Your task to perform on an android device: turn on wifi Image 0: 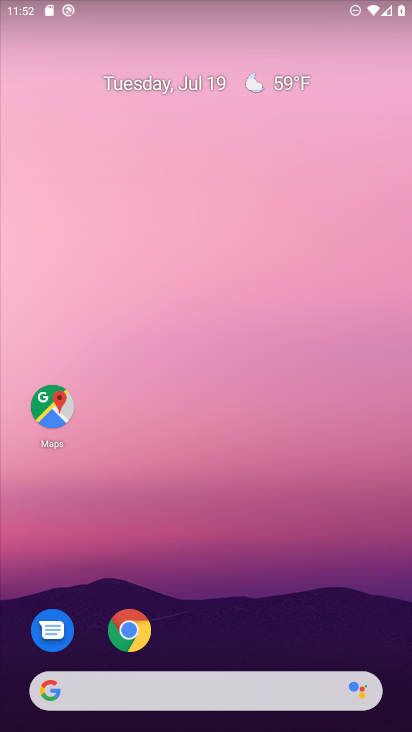
Step 0: drag from (156, 649) to (252, 0)
Your task to perform on an android device: turn on wifi Image 1: 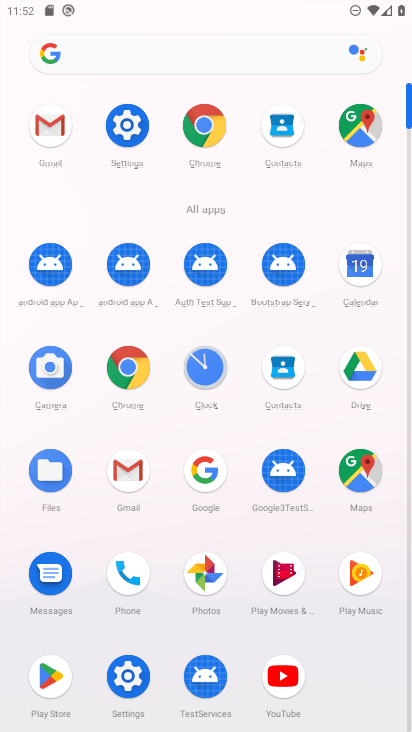
Step 1: click (120, 122)
Your task to perform on an android device: turn on wifi Image 2: 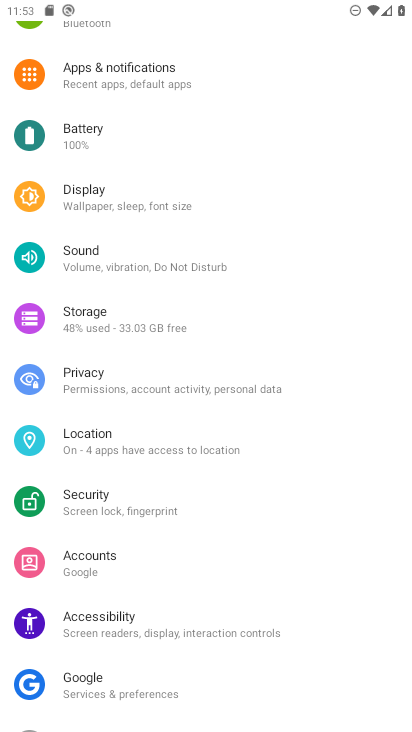
Step 2: drag from (143, 93) to (147, 606)
Your task to perform on an android device: turn on wifi Image 3: 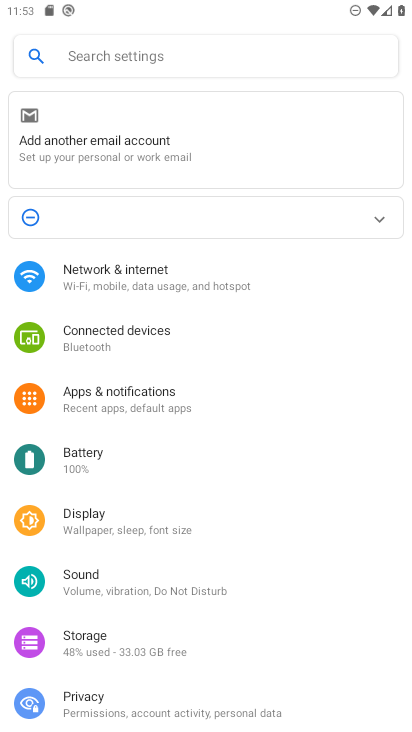
Step 3: click (162, 270)
Your task to perform on an android device: turn on wifi Image 4: 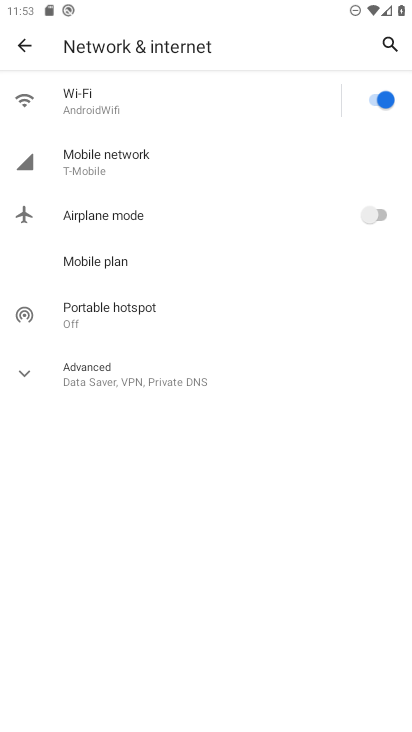
Step 4: task complete